Your task to perform on an android device: turn on priority inbox in the gmail app Image 0: 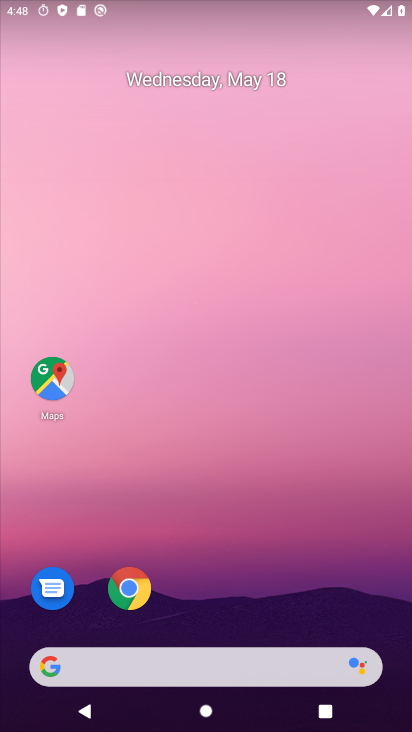
Step 0: drag from (205, 607) to (239, 98)
Your task to perform on an android device: turn on priority inbox in the gmail app Image 1: 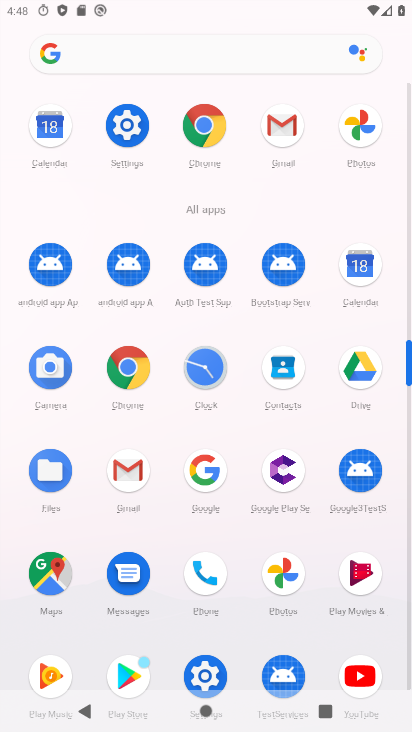
Step 1: click (279, 127)
Your task to perform on an android device: turn on priority inbox in the gmail app Image 2: 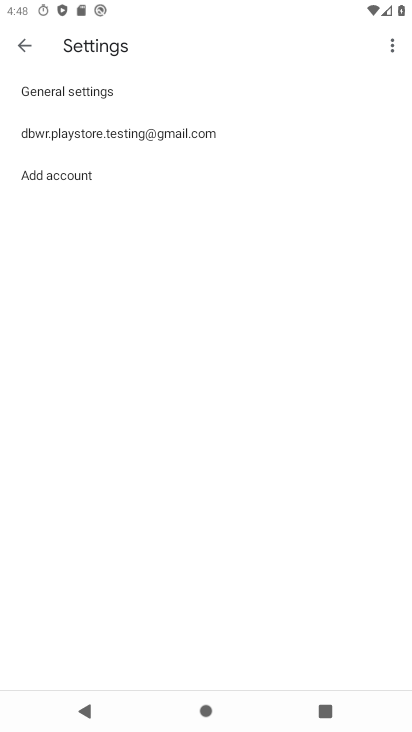
Step 2: click (106, 135)
Your task to perform on an android device: turn on priority inbox in the gmail app Image 3: 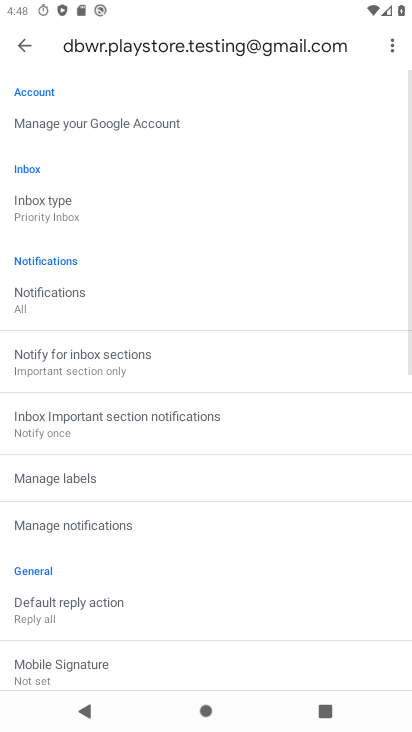
Step 3: click (69, 209)
Your task to perform on an android device: turn on priority inbox in the gmail app Image 4: 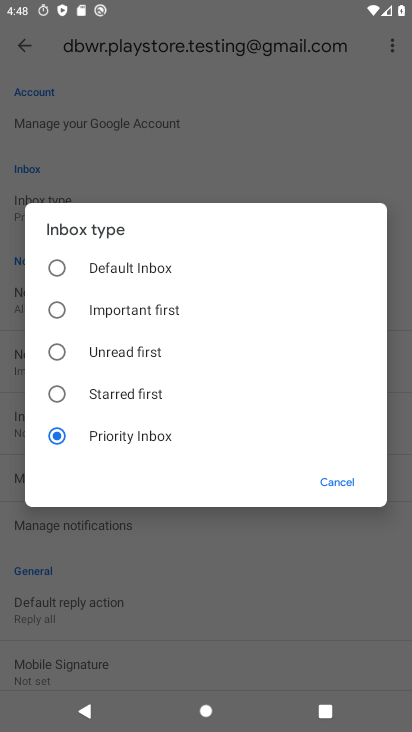
Step 4: click (108, 430)
Your task to perform on an android device: turn on priority inbox in the gmail app Image 5: 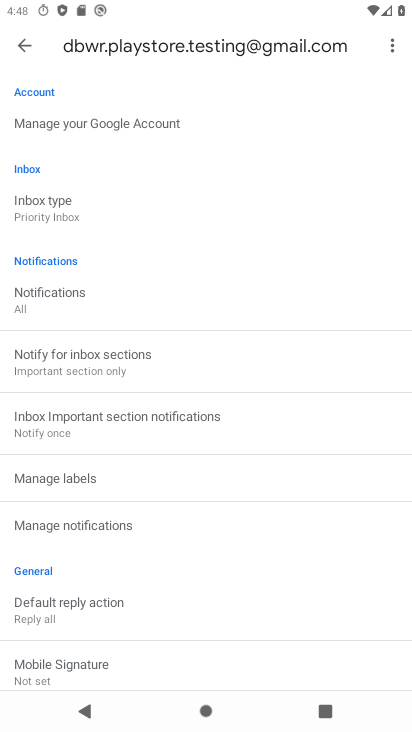
Step 5: task complete